Your task to perform on an android device: star an email in the gmail app Image 0: 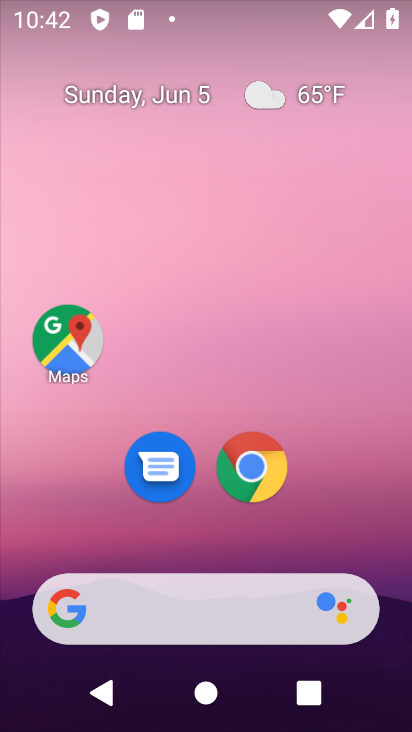
Step 0: drag from (256, 545) to (232, 0)
Your task to perform on an android device: star an email in the gmail app Image 1: 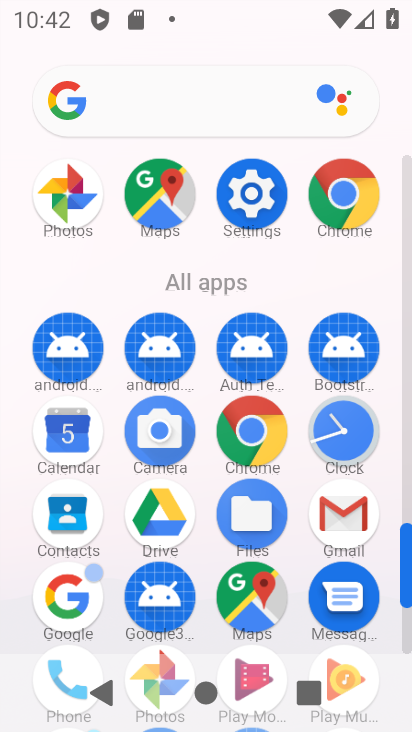
Step 1: drag from (338, 518) to (404, 515)
Your task to perform on an android device: star an email in the gmail app Image 2: 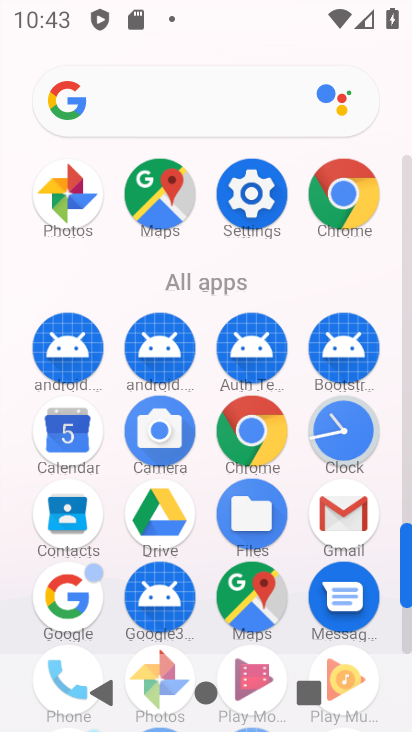
Step 2: click (359, 509)
Your task to perform on an android device: star an email in the gmail app Image 3: 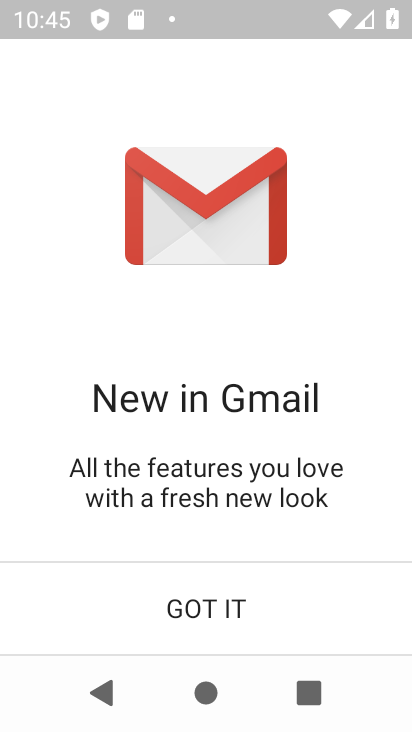
Step 3: press home button
Your task to perform on an android device: star an email in the gmail app Image 4: 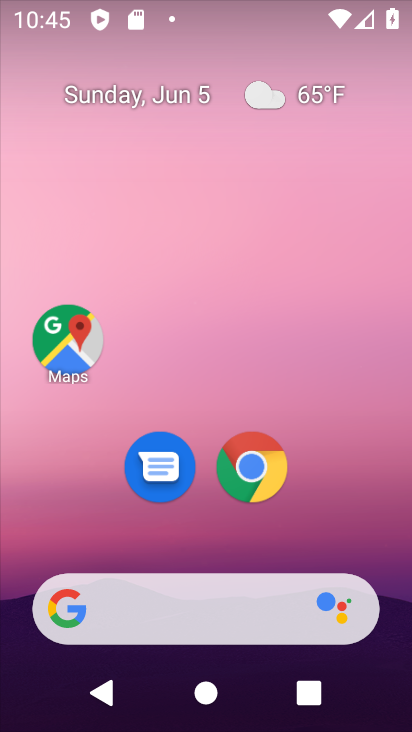
Step 4: drag from (399, 562) to (280, 98)
Your task to perform on an android device: star an email in the gmail app Image 5: 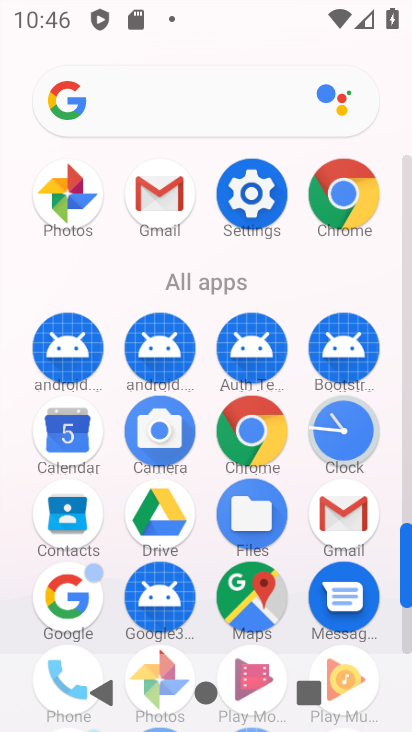
Step 5: click (169, 195)
Your task to perform on an android device: star an email in the gmail app Image 6: 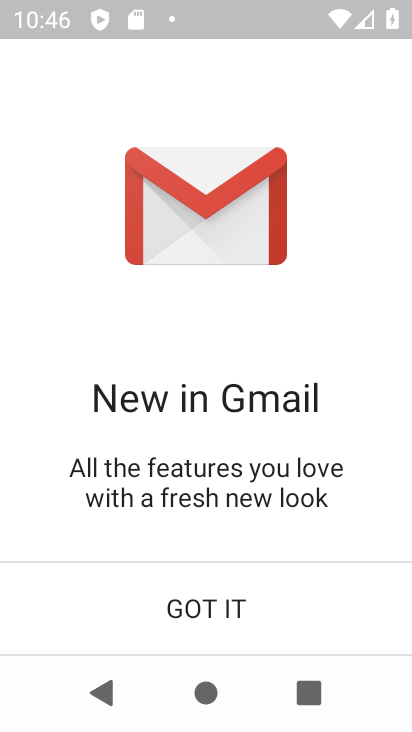
Step 6: click (127, 597)
Your task to perform on an android device: star an email in the gmail app Image 7: 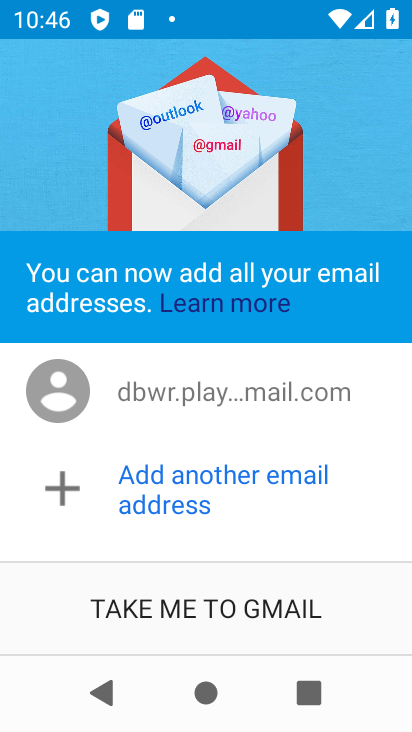
Step 7: click (128, 596)
Your task to perform on an android device: star an email in the gmail app Image 8: 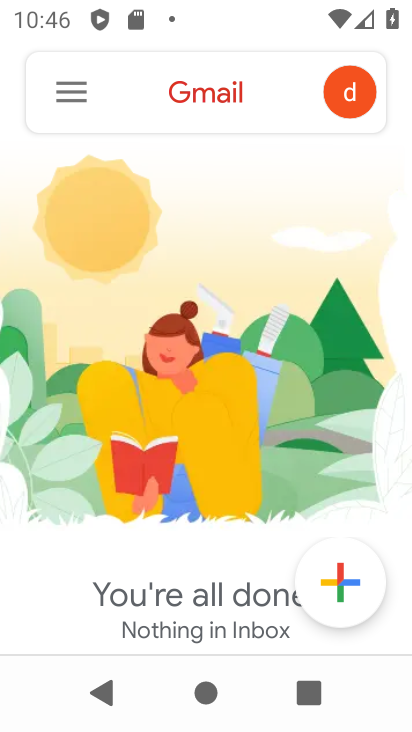
Step 8: task complete